Your task to perform on an android device: stop showing notifications on the lock screen Image 0: 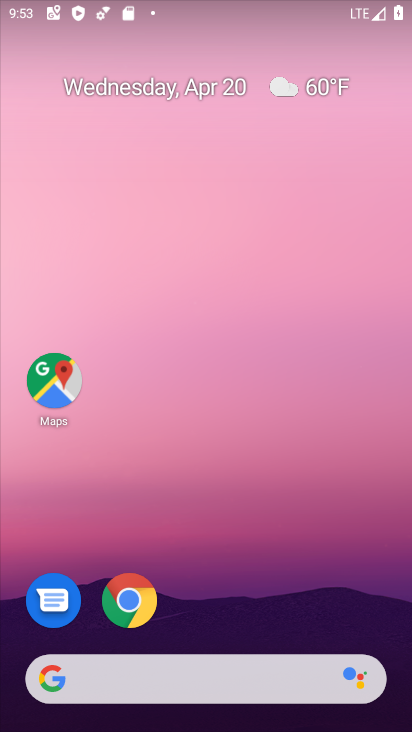
Step 0: drag from (246, 641) to (203, 128)
Your task to perform on an android device: stop showing notifications on the lock screen Image 1: 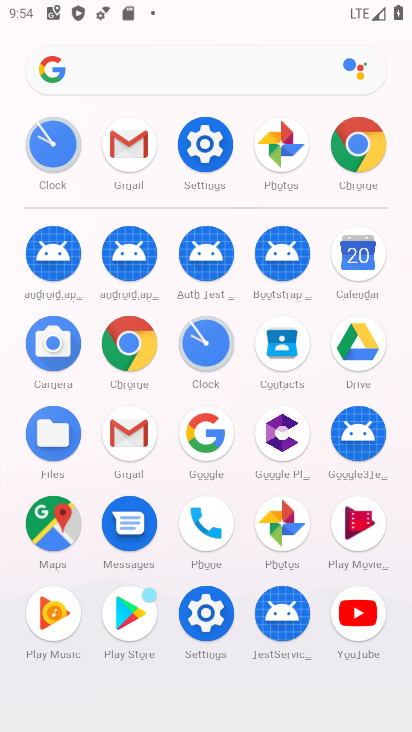
Step 1: click (197, 131)
Your task to perform on an android device: stop showing notifications on the lock screen Image 2: 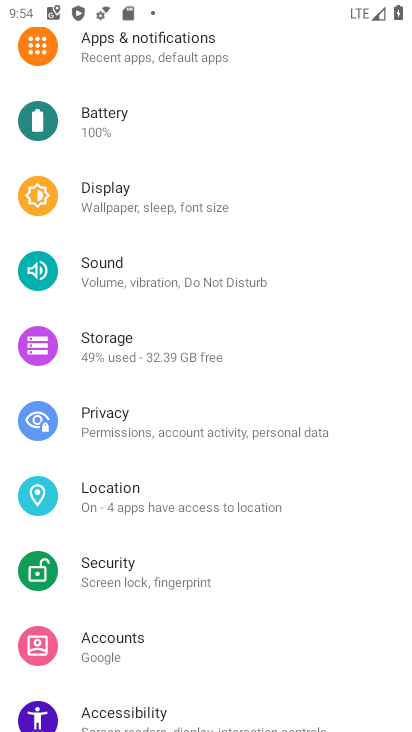
Step 2: click (212, 38)
Your task to perform on an android device: stop showing notifications on the lock screen Image 3: 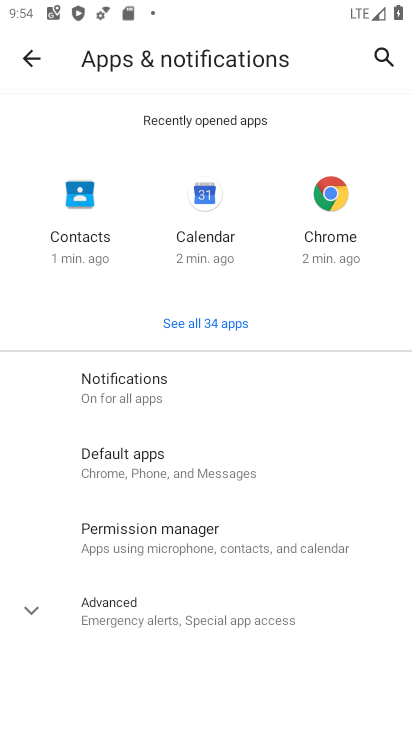
Step 3: click (154, 375)
Your task to perform on an android device: stop showing notifications on the lock screen Image 4: 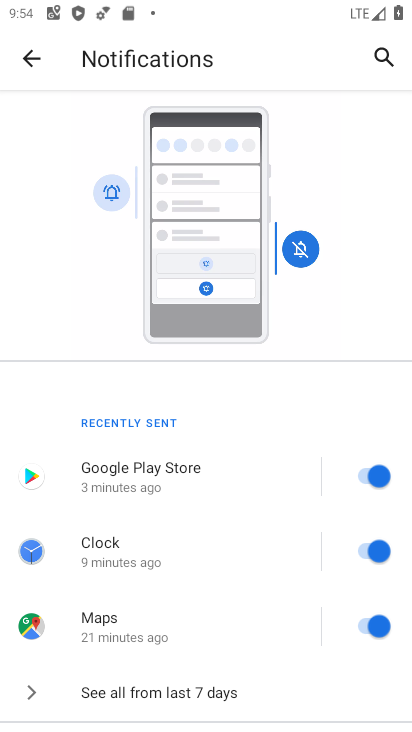
Step 4: drag from (223, 639) to (219, 288)
Your task to perform on an android device: stop showing notifications on the lock screen Image 5: 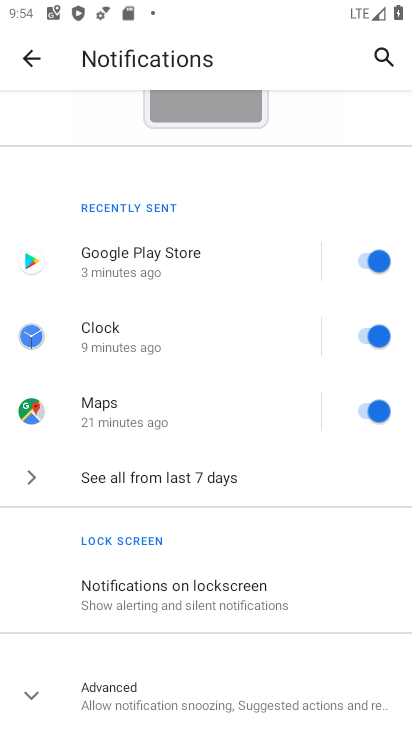
Step 5: click (184, 608)
Your task to perform on an android device: stop showing notifications on the lock screen Image 6: 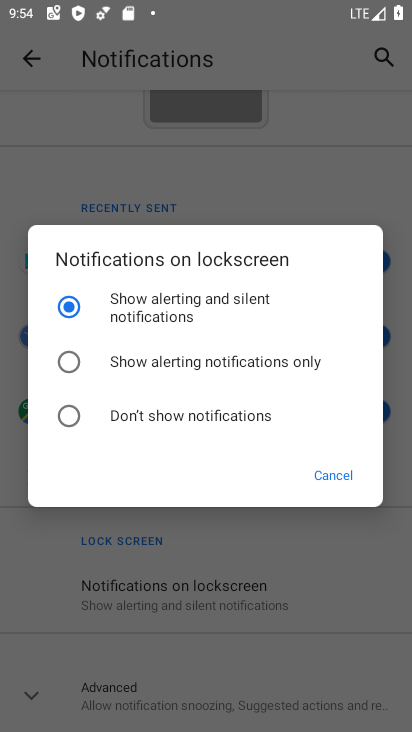
Step 6: click (60, 411)
Your task to perform on an android device: stop showing notifications on the lock screen Image 7: 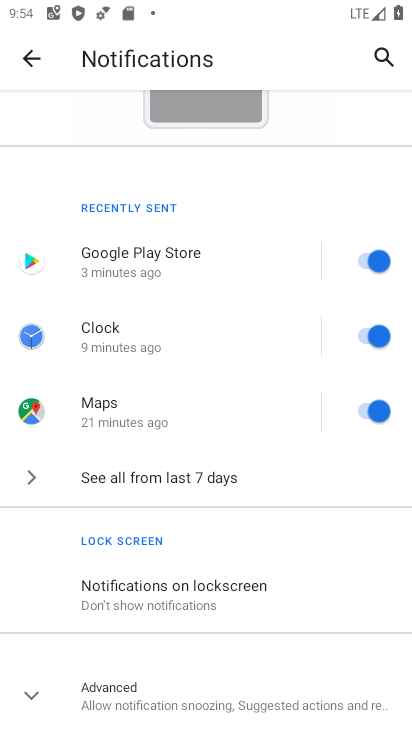
Step 7: task complete